Your task to perform on an android device: toggle priority inbox in the gmail app Image 0: 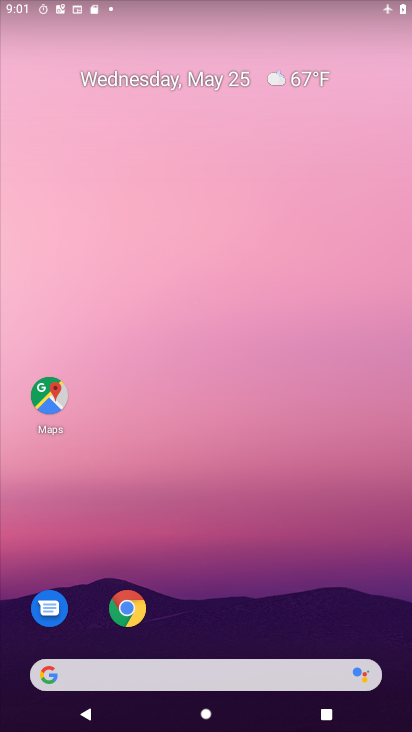
Step 0: drag from (225, 726) to (229, 154)
Your task to perform on an android device: toggle priority inbox in the gmail app Image 1: 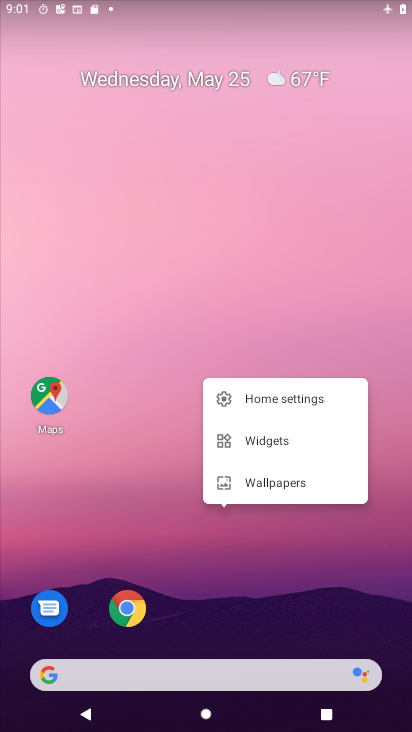
Step 1: click (183, 268)
Your task to perform on an android device: toggle priority inbox in the gmail app Image 2: 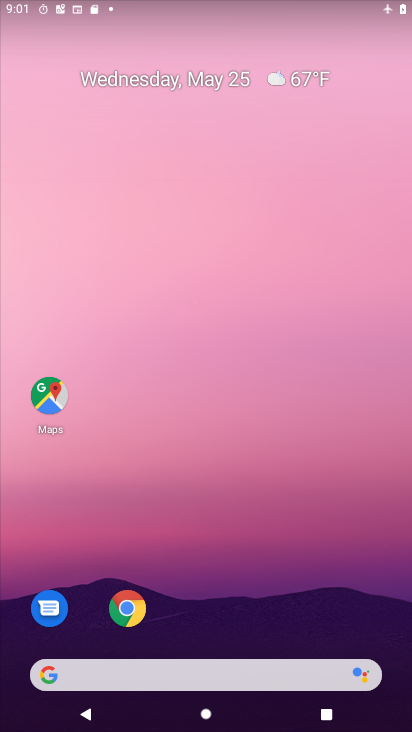
Step 2: drag from (221, 724) to (223, 113)
Your task to perform on an android device: toggle priority inbox in the gmail app Image 3: 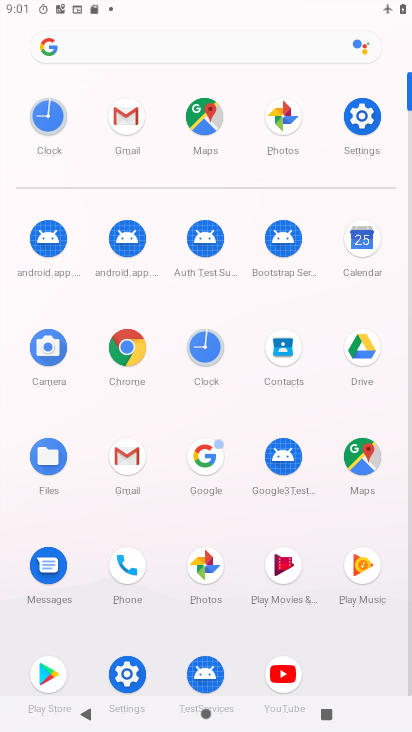
Step 3: click (127, 459)
Your task to perform on an android device: toggle priority inbox in the gmail app Image 4: 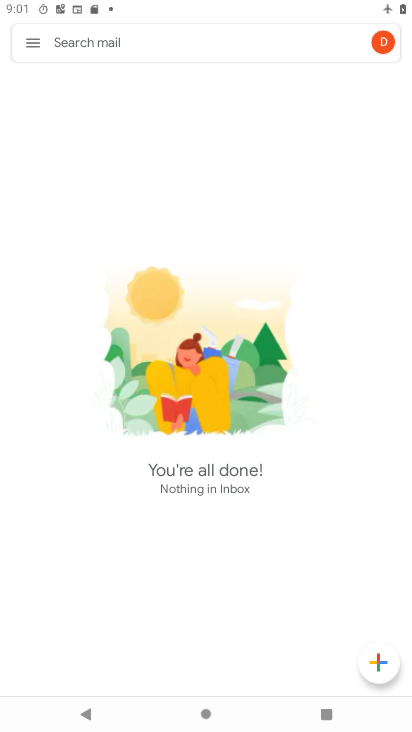
Step 4: click (33, 43)
Your task to perform on an android device: toggle priority inbox in the gmail app Image 5: 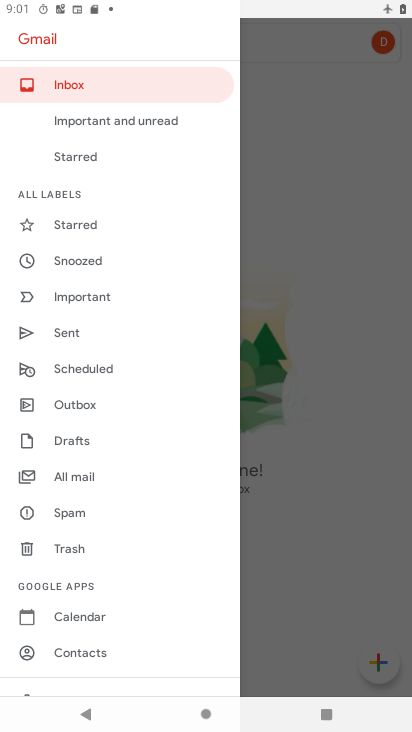
Step 5: drag from (81, 620) to (81, 220)
Your task to perform on an android device: toggle priority inbox in the gmail app Image 6: 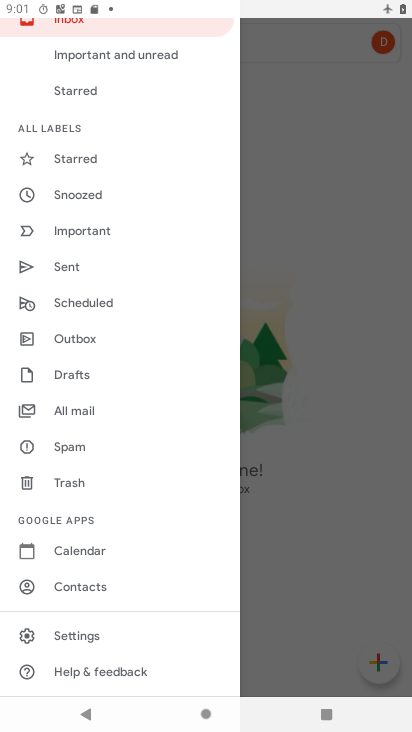
Step 6: click (74, 634)
Your task to perform on an android device: toggle priority inbox in the gmail app Image 7: 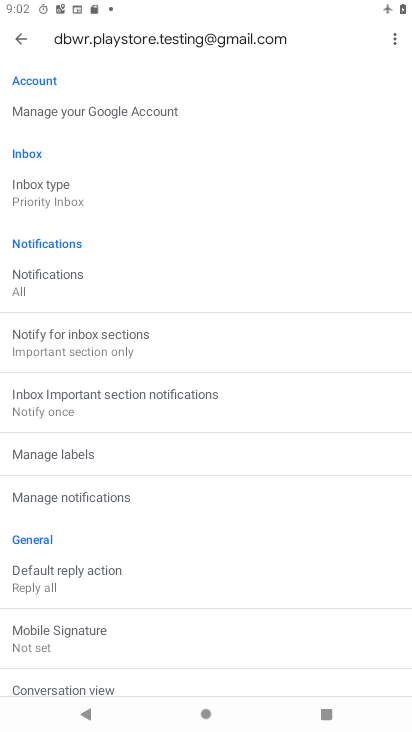
Step 7: click (39, 200)
Your task to perform on an android device: toggle priority inbox in the gmail app Image 8: 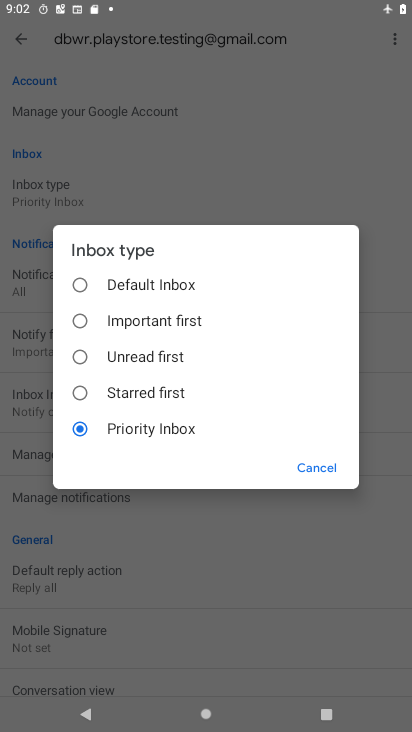
Step 8: click (81, 285)
Your task to perform on an android device: toggle priority inbox in the gmail app Image 9: 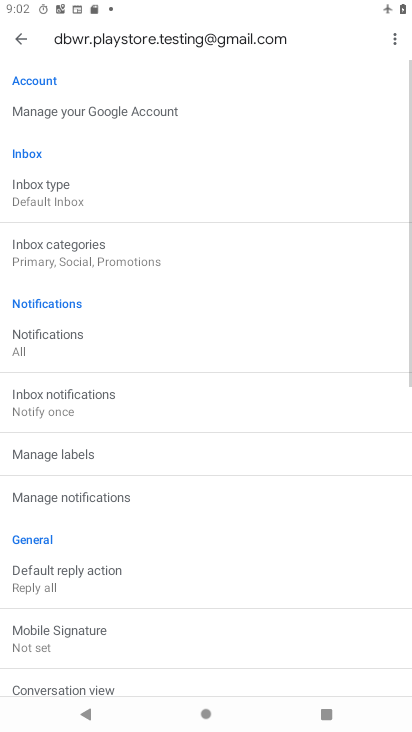
Step 9: task complete